Your task to perform on an android device: What's the weather going to be this weekend? Image 0: 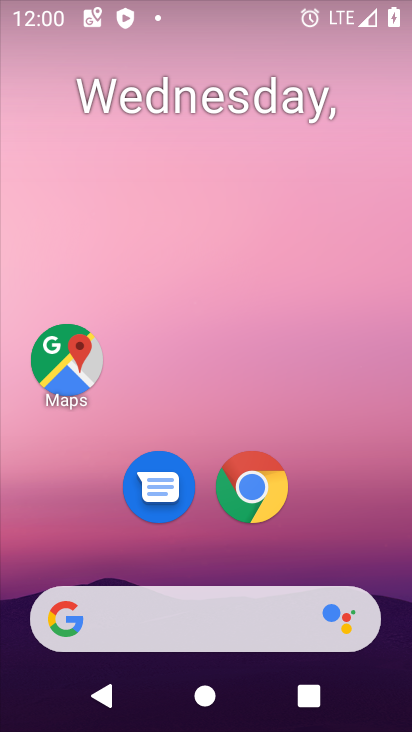
Step 0: click (297, 149)
Your task to perform on an android device: What's the weather going to be this weekend? Image 1: 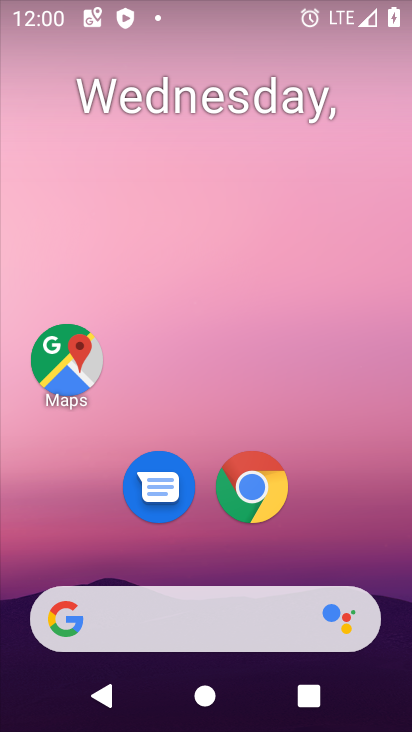
Step 1: drag from (215, 568) to (329, 35)
Your task to perform on an android device: What's the weather going to be this weekend? Image 2: 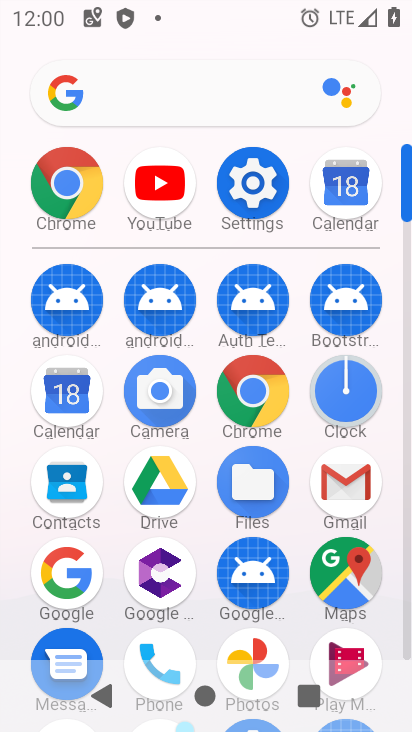
Step 2: click (225, 89)
Your task to perform on an android device: What's the weather going to be this weekend? Image 3: 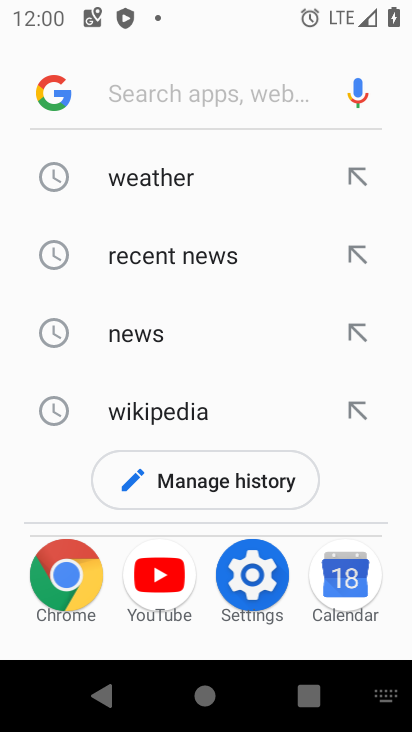
Step 3: type "weather going to be this weekend"
Your task to perform on an android device: What's the weather going to be this weekend? Image 4: 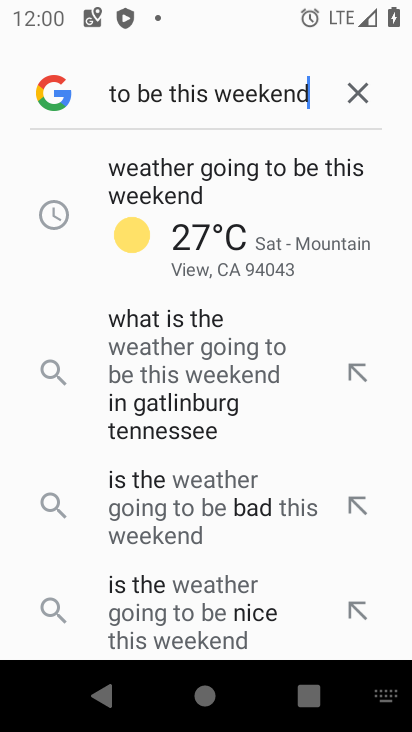
Step 4: click (190, 187)
Your task to perform on an android device: What's the weather going to be this weekend? Image 5: 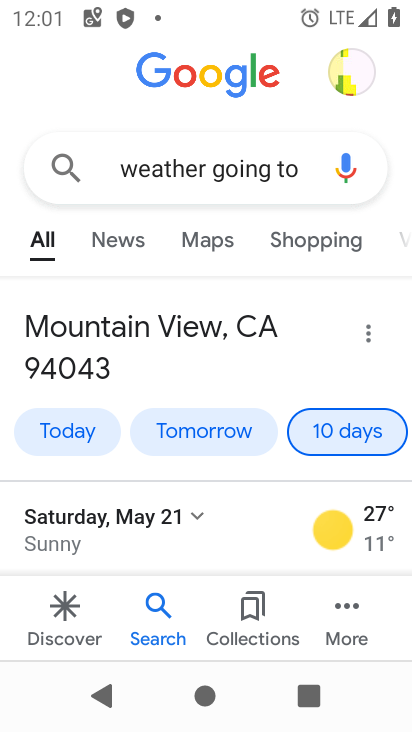
Step 5: task complete